Your task to perform on an android device: Go to location settings Image 0: 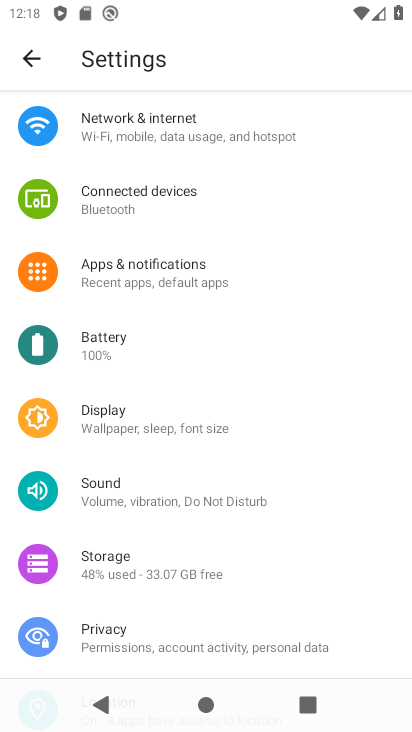
Step 0: drag from (182, 634) to (226, 363)
Your task to perform on an android device: Go to location settings Image 1: 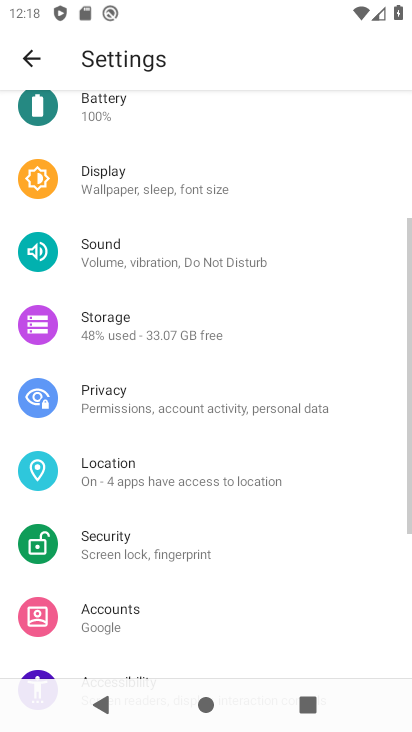
Step 1: click (204, 475)
Your task to perform on an android device: Go to location settings Image 2: 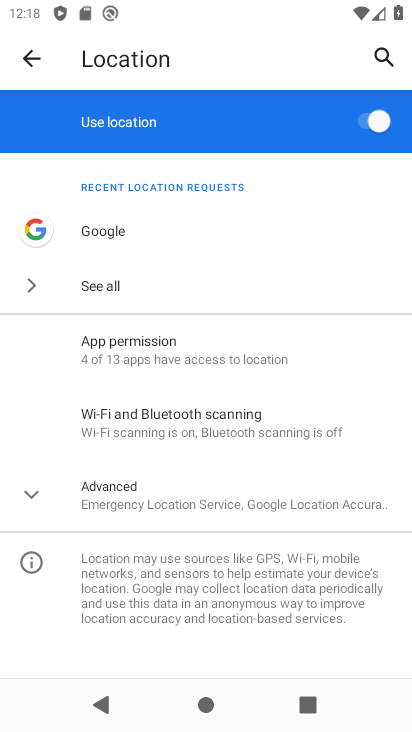
Step 2: task complete